Your task to perform on an android device: turn pop-ups on in chrome Image 0: 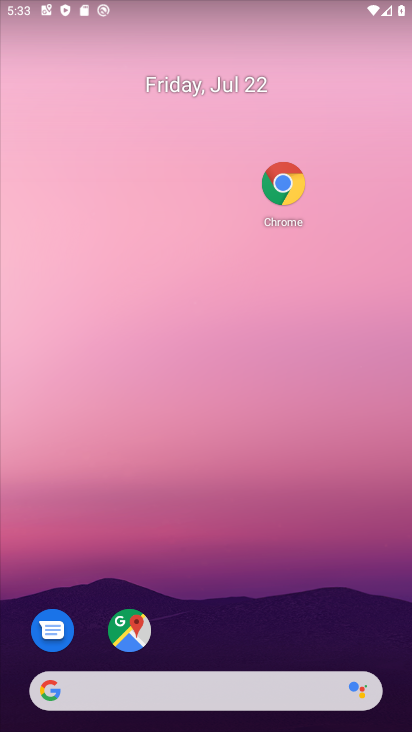
Step 0: click (277, 191)
Your task to perform on an android device: turn pop-ups on in chrome Image 1: 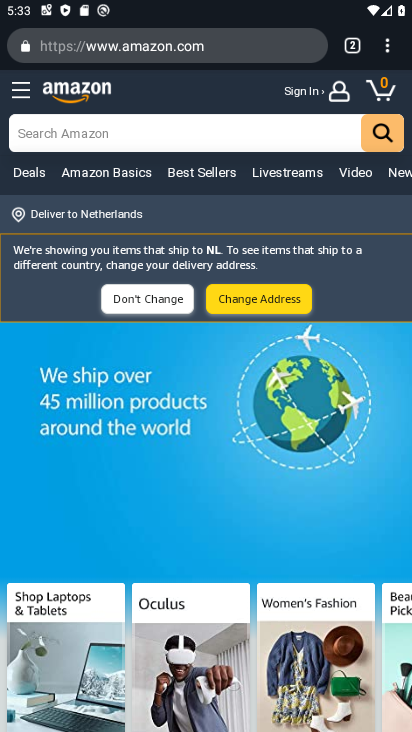
Step 1: click (387, 41)
Your task to perform on an android device: turn pop-ups on in chrome Image 2: 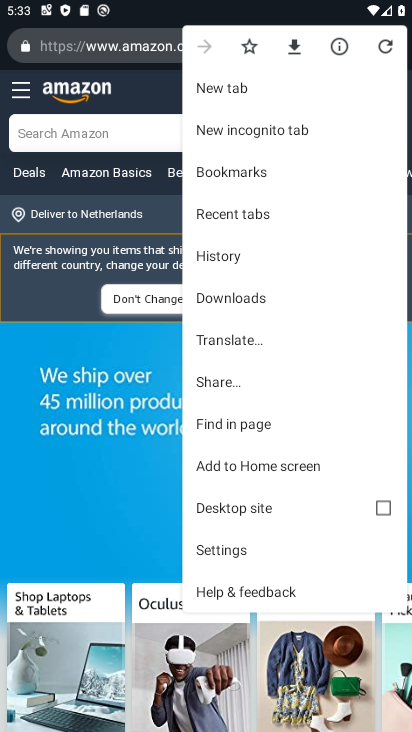
Step 2: click (206, 552)
Your task to perform on an android device: turn pop-ups on in chrome Image 3: 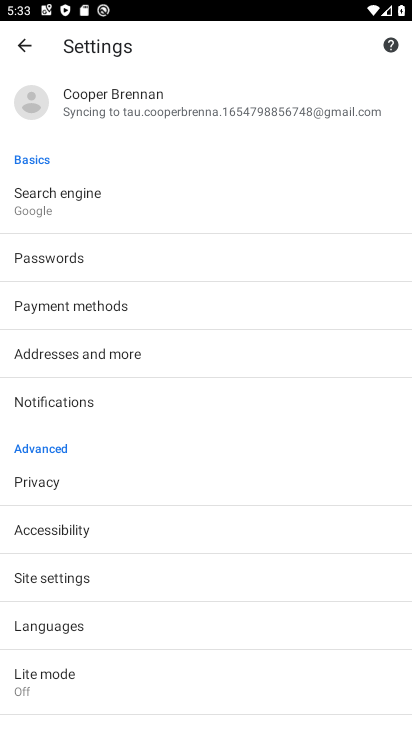
Step 3: click (65, 576)
Your task to perform on an android device: turn pop-ups on in chrome Image 4: 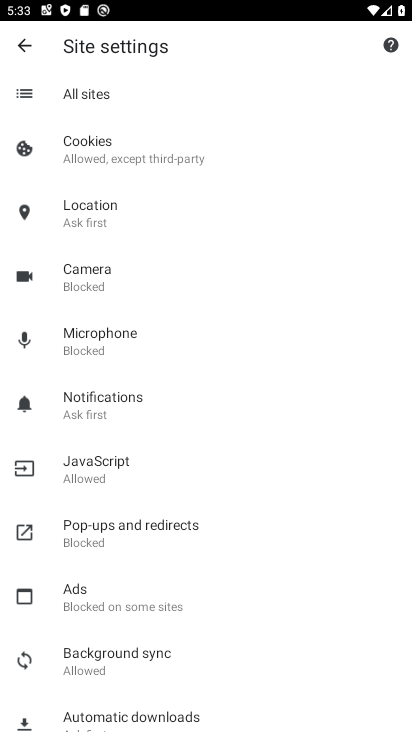
Step 4: click (101, 548)
Your task to perform on an android device: turn pop-ups on in chrome Image 5: 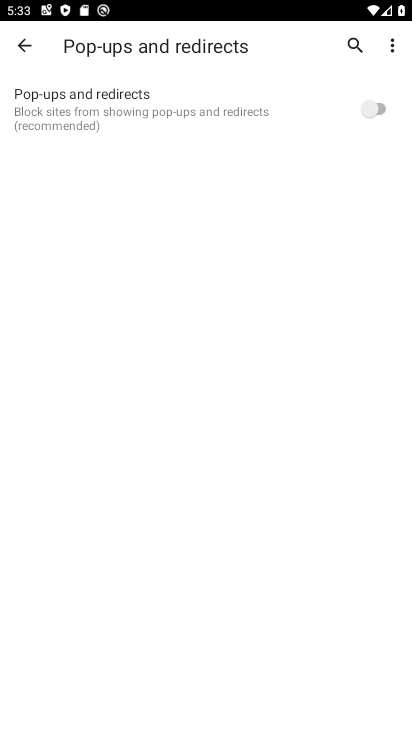
Step 5: click (383, 107)
Your task to perform on an android device: turn pop-ups on in chrome Image 6: 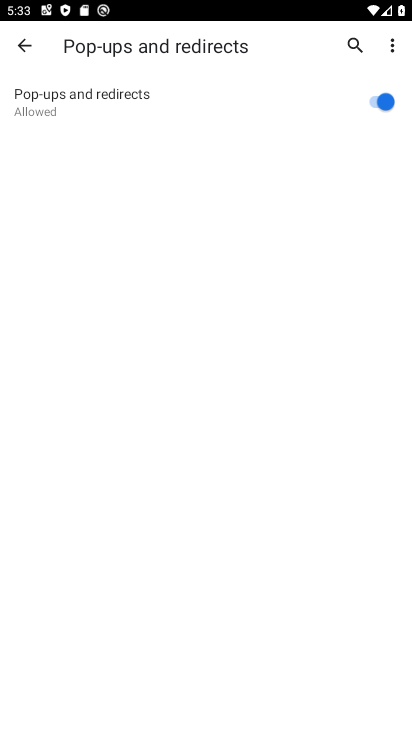
Step 6: task complete